Your task to perform on an android device: What is the recent news? Image 0: 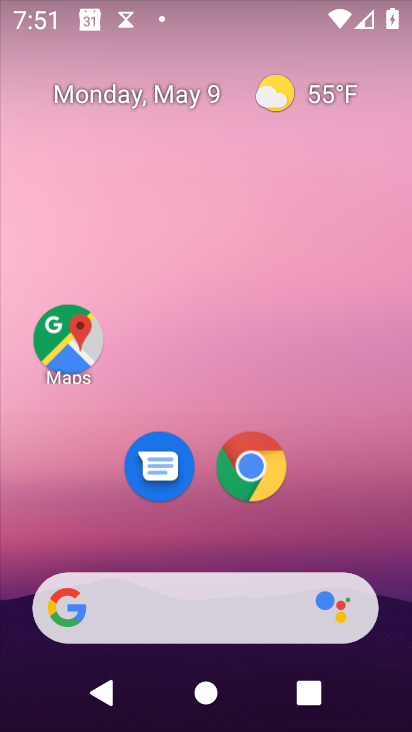
Step 0: click (368, 577)
Your task to perform on an android device: What is the recent news? Image 1: 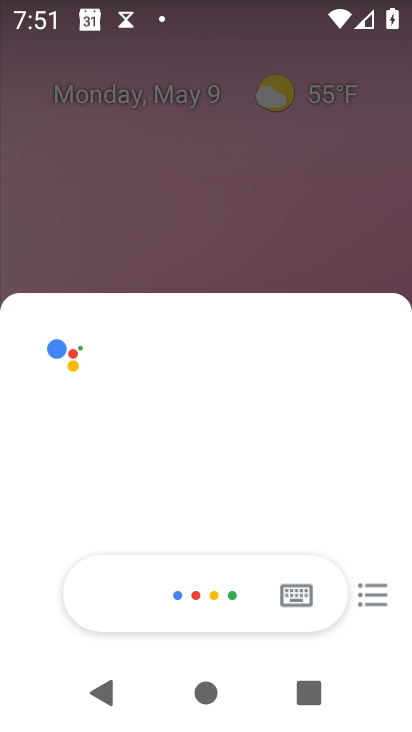
Step 1: drag from (14, 192) to (406, 308)
Your task to perform on an android device: What is the recent news? Image 2: 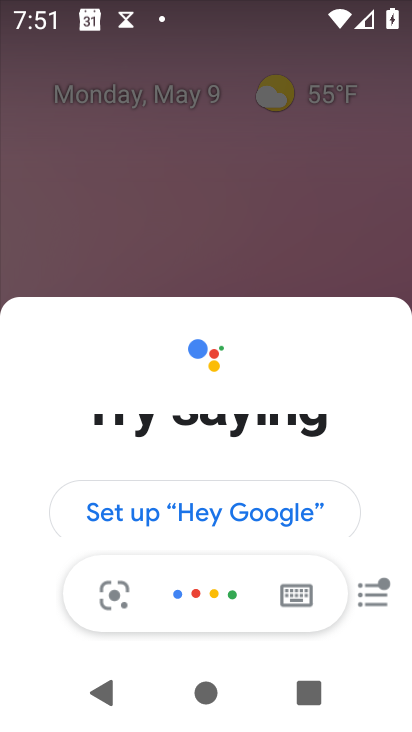
Step 2: press back button
Your task to perform on an android device: What is the recent news? Image 3: 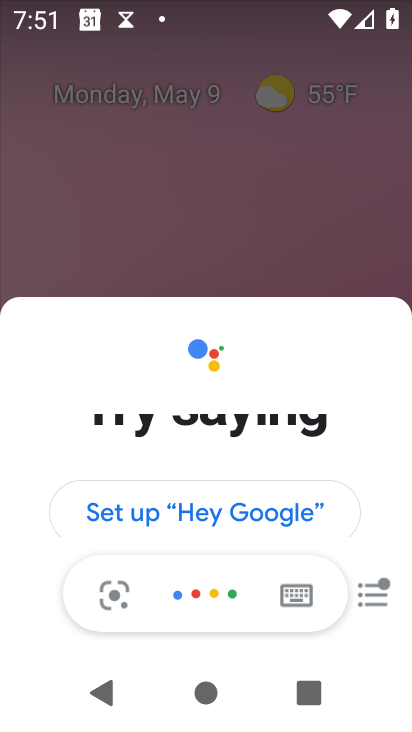
Step 3: click (399, 252)
Your task to perform on an android device: What is the recent news? Image 4: 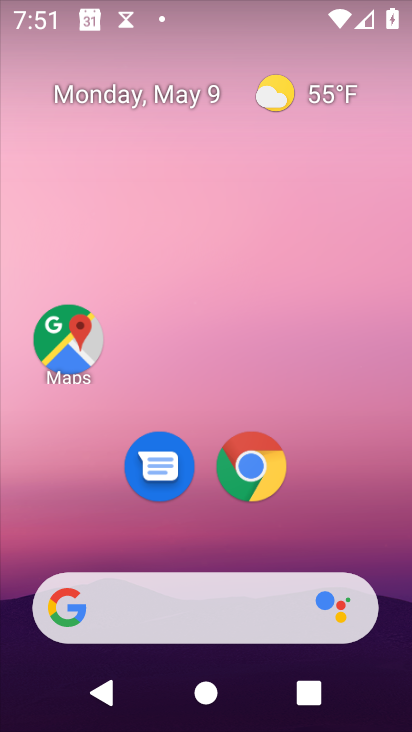
Step 4: task complete